Your task to perform on an android device: Open the phone app and click the voicemail tab. Image 0: 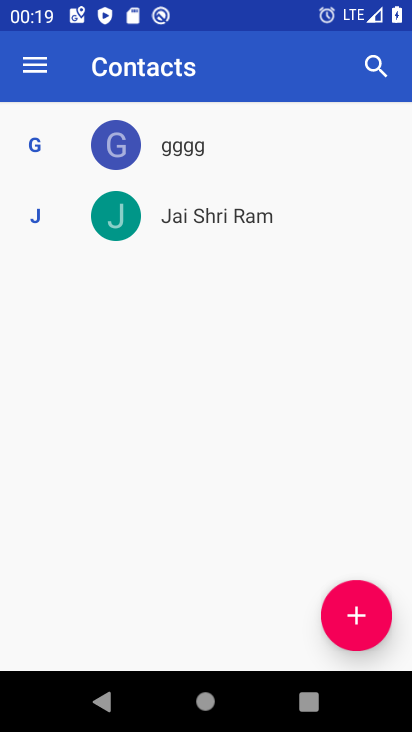
Step 0: press home button
Your task to perform on an android device: Open the phone app and click the voicemail tab. Image 1: 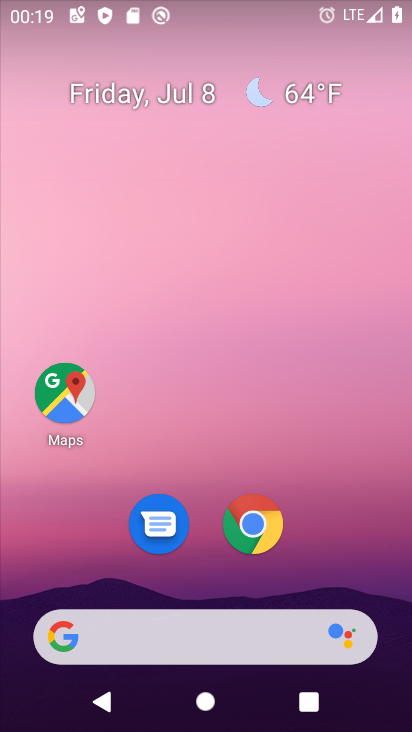
Step 1: drag from (318, 563) to (316, 80)
Your task to perform on an android device: Open the phone app and click the voicemail tab. Image 2: 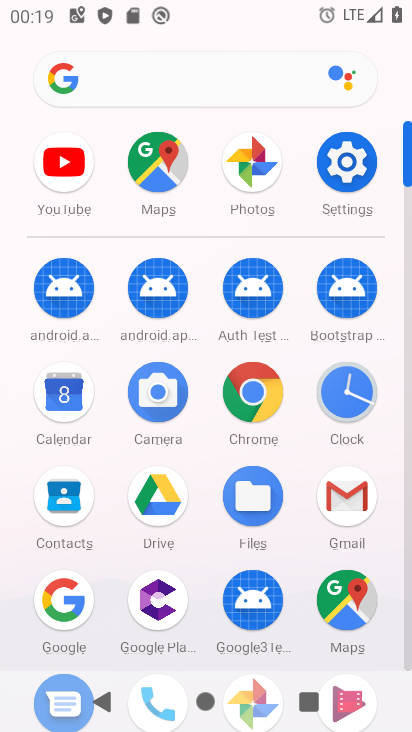
Step 2: drag from (193, 460) to (215, 229)
Your task to perform on an android device: Open the phone app and click the voicemail tab. Image 3: 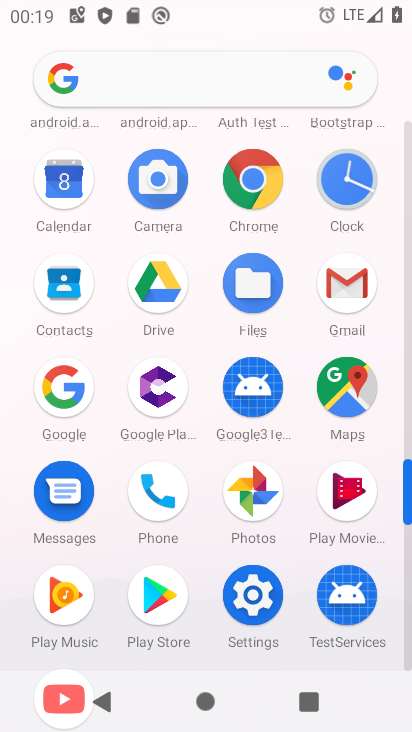
Step 3: click (163, 481)
Your task to perform on an android device: Open the phone app and click the voicemail tab. Image 4: 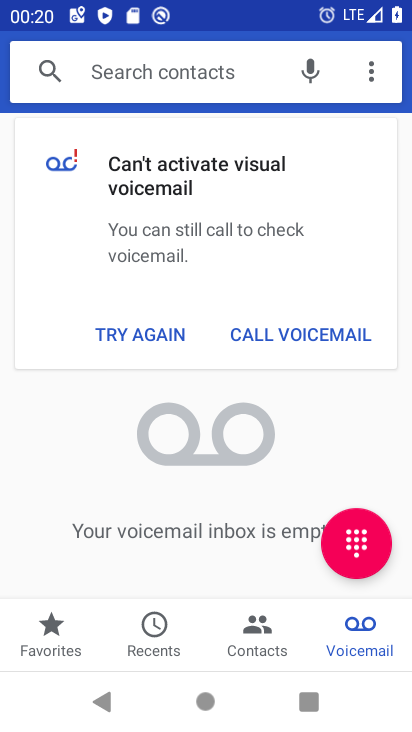
Step 4: click (357, 632)
Your task to perform on an android device: Open the phone app and click the voicemail tab. Image 5: 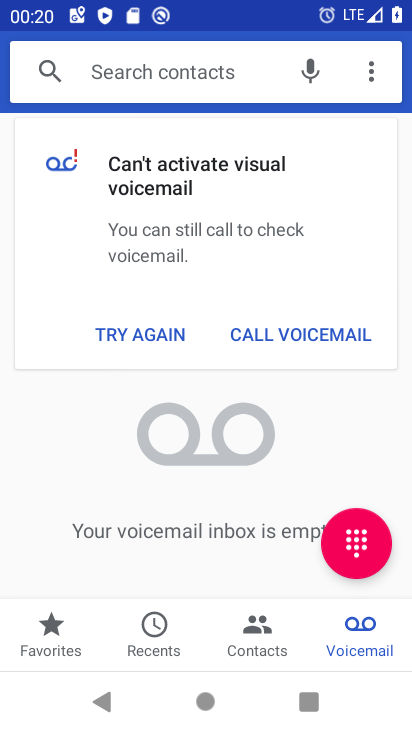
Step 5: task complete